Your task to perform on an android device: turn off javascript in the chrome app Image 0: 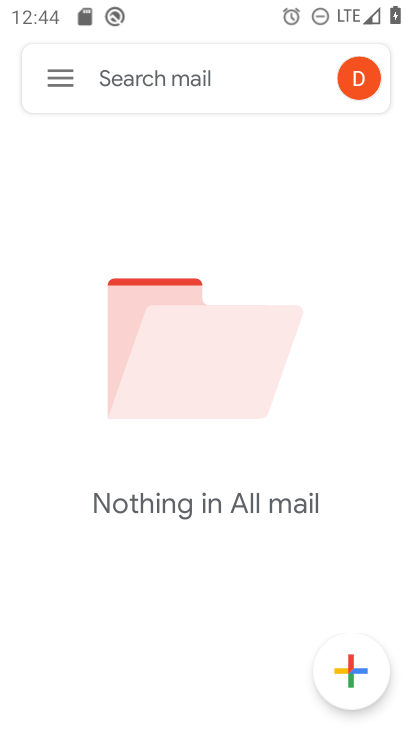
Step 0: press home button
Your task to perform on an android device: turn off javascript in the chrome app Image 1: 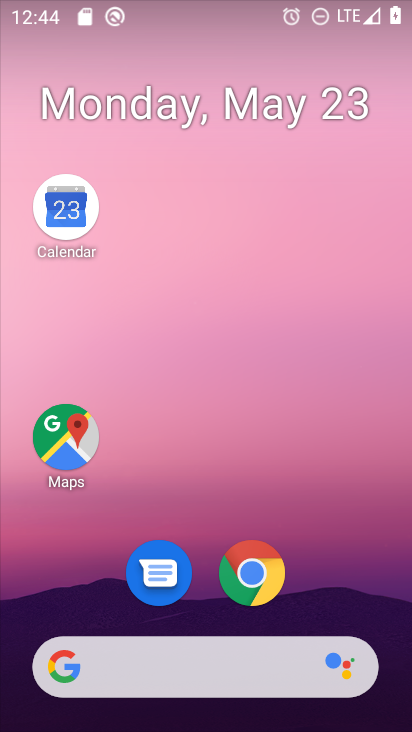
Step 1: drag from (331, 615) to (318, 112)
Your task to perform on an android device: turn off javascript in the chrome app Image 2: 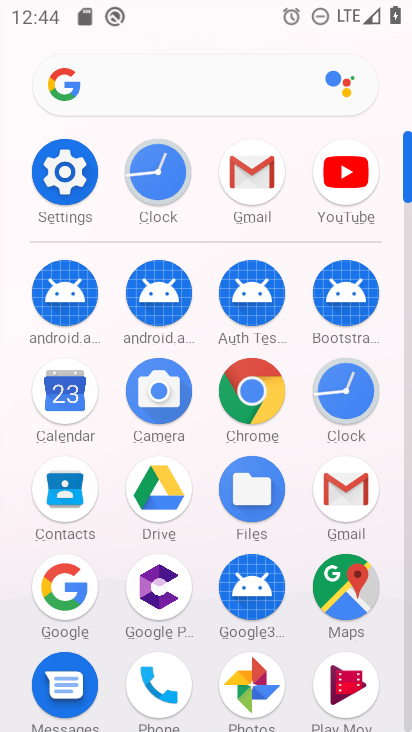
Step 2: click (251, 393)
Your task to perform on an android device: turn off javascript in the chrome app Image 3: 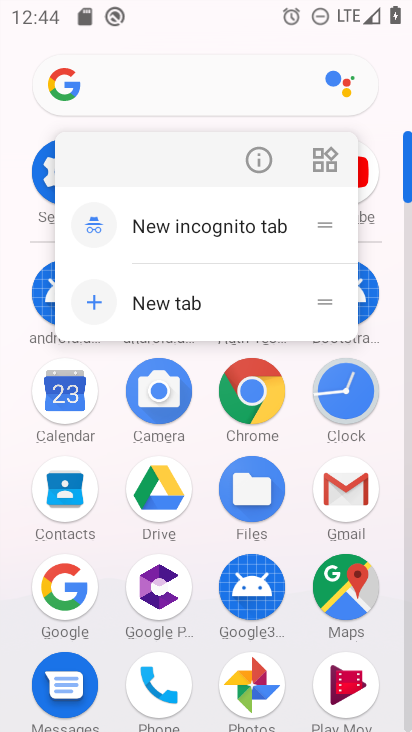
Step 3: click (237, 396)
Your task to perform on an android device: turn off javascript in the chrome app Image 4: 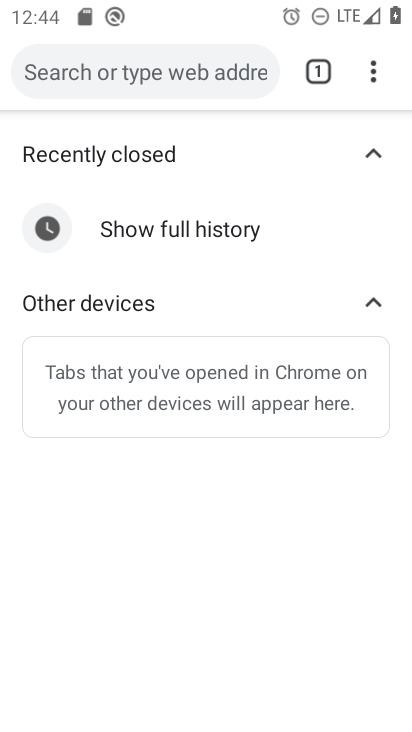
Step 4: click (373, 70)
Your task to perform on an android device: turn off javascript in the chrome app Image 5: 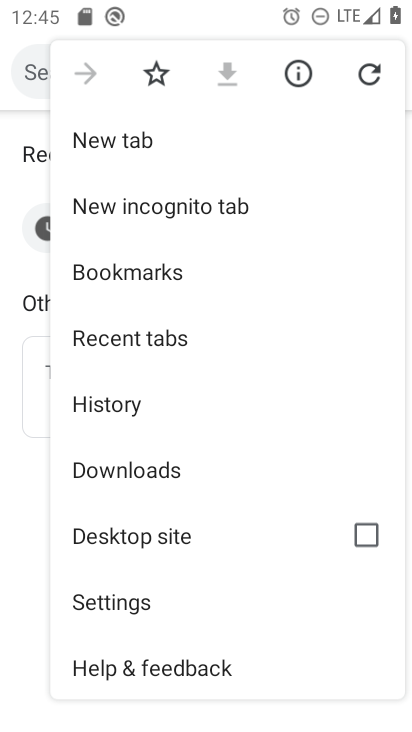
Step 5: click (188, 608)
Your task to perform on an android device: turn off javascript in the chrome app Image 6: 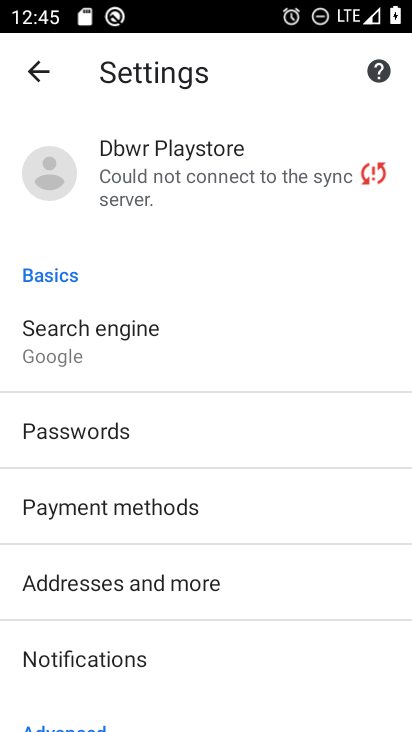
Step 6: drag from (163, 685) to (256, 361)
Your task to perform on an android device: turn off javascript in the chrome app Image 7: 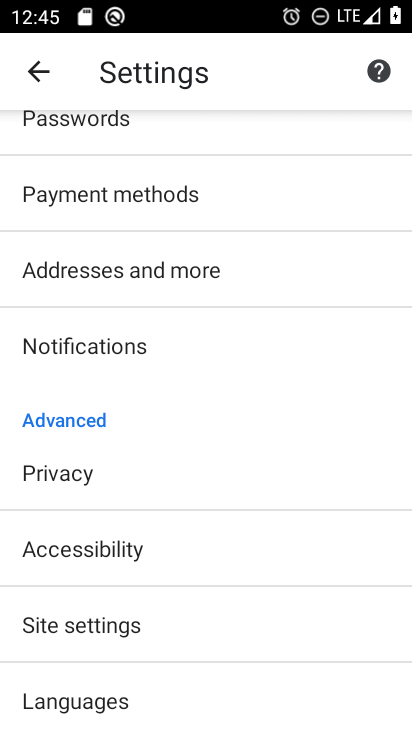
Step 7: drag from (202, 670) to (226, 489)
Your task to perform on an android device: turn off javascript in the chrome app Image 8: 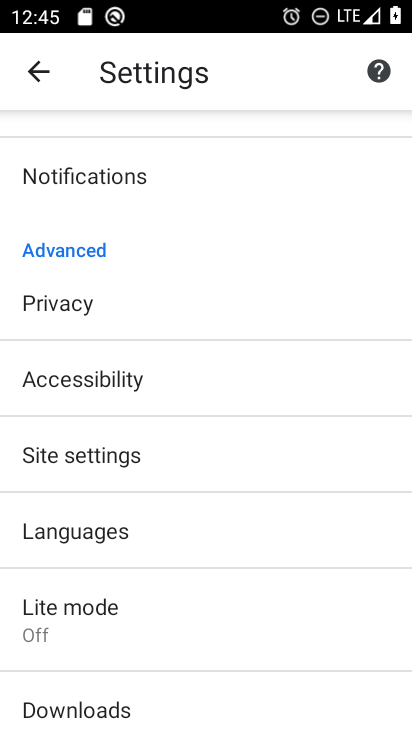
Step 8: click (143, 432)
Your task to perform on an android device: turn off javascript in the chrome app Image 9: 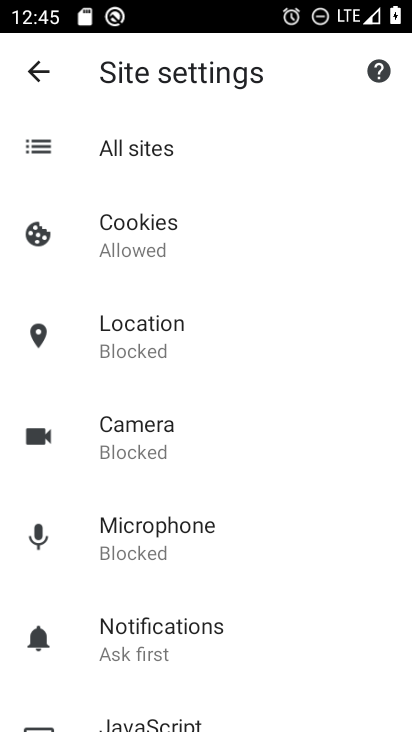
Step 9: drag from (204, 664) to (324, 221)
Your task to perform on an android device: turn off javascript in the chrome app Image 10: 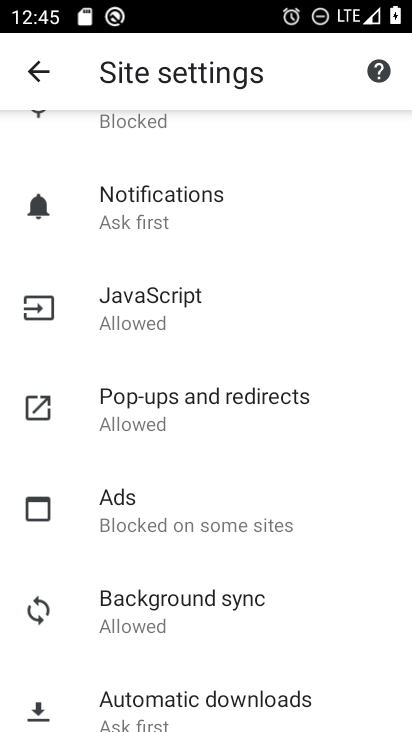
Step 10: click (125, 304)
Your task to perform on an android device: turn off javascript in the chrome app Image 11: 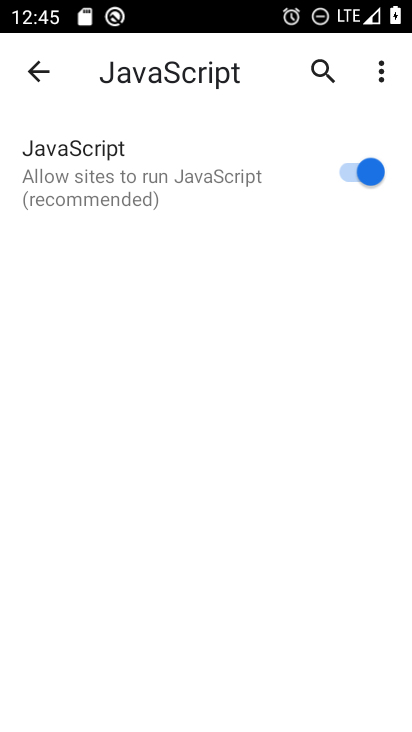
Step 11: click (367, 173)
Your task to perform on an android device: turn off javascript in the chrome app Image 12: 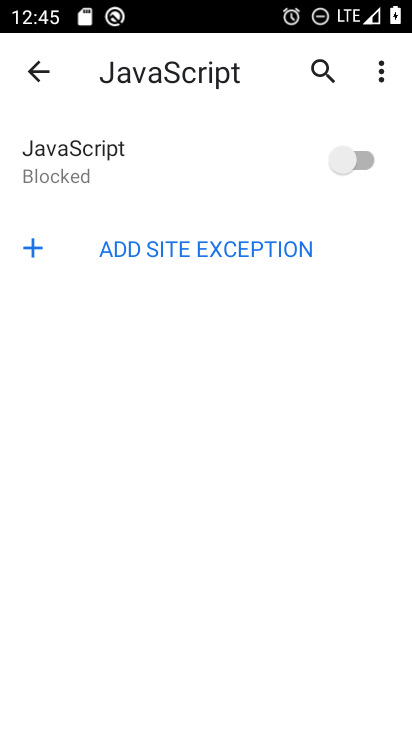
Step 12: task complete